Your task to perform on an android device: show emergency info Image 0: 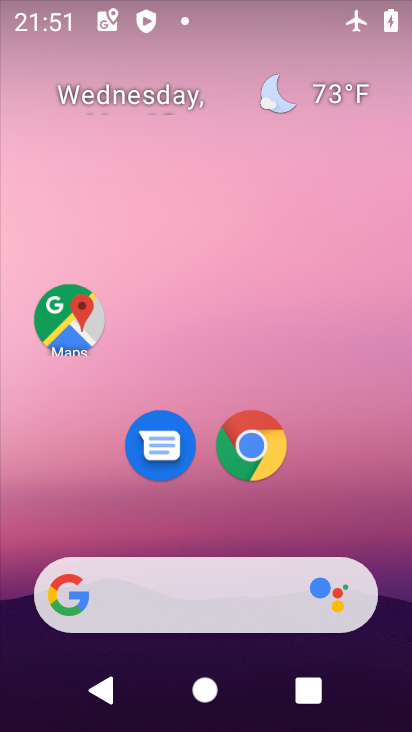
Step 0: drag from (290, 491) to (301, 219)
Your task to perform on an android device: show emergency info Image 1: 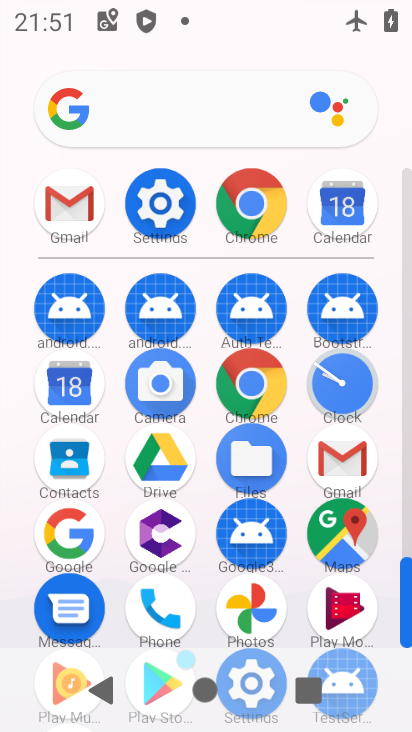
Step 1: click (149, 205)
Your task to perform on an android device: show emergency info Image 2: 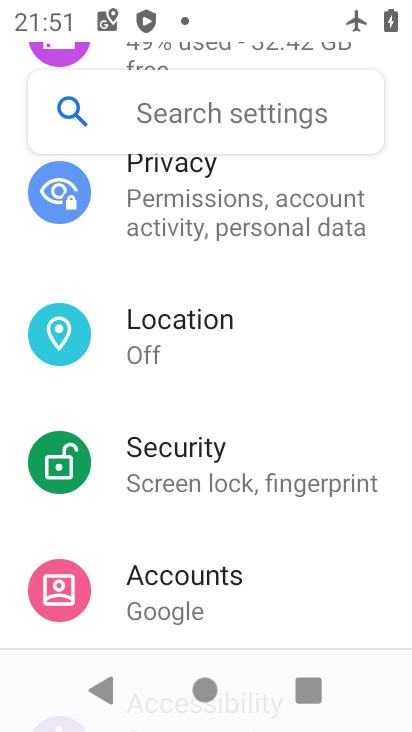
Step 2: drag from (246, 592) to (273, 137)
Your task to perform on an android device: show emergency info Image 3: 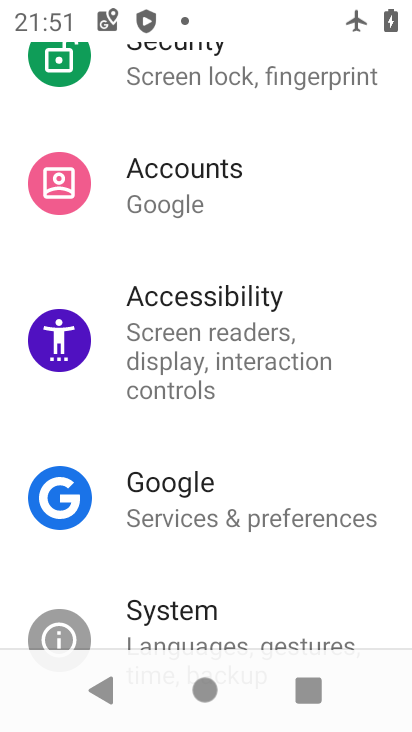
Step 3: drag from (240, 569) to (253, 127)
Your task to perform on an android device: show emergency info Image 4: 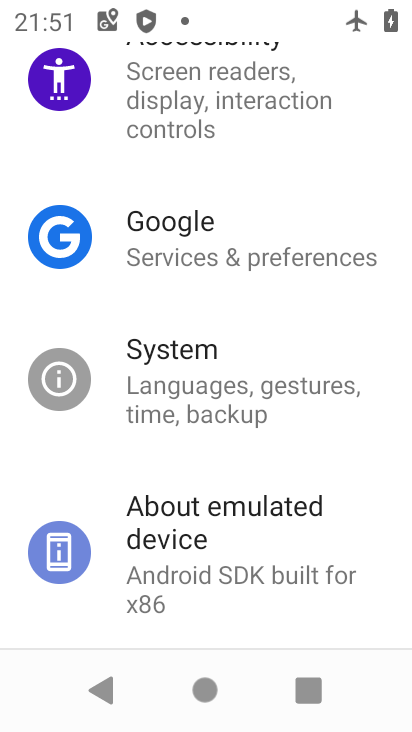
Step 4: click (187, 544)
Your task to perform on an android device: show emergency info Image 5: 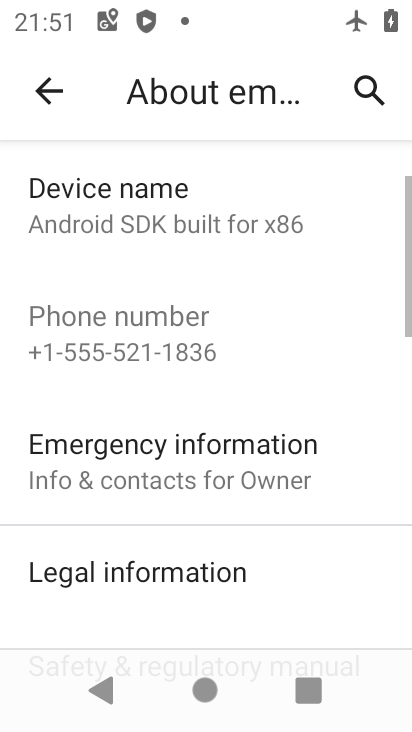
Step 5: click (167, 460)
Your task to perform on an android device: show emergency info Image 6: 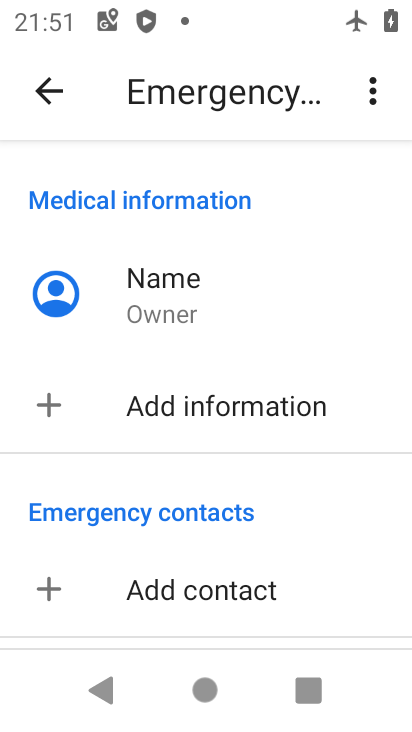
Step 6: task complete